Your task to perform on an android device: check android version Image 0: 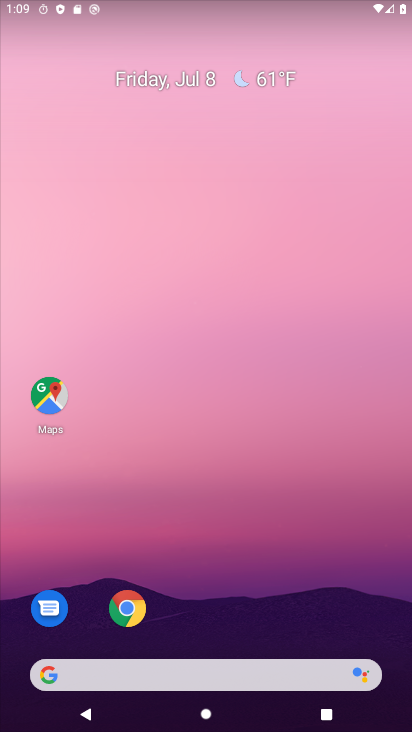
Step 0: drag from (204, 635) to (278, 52)
Your task to perform on an android device: check android version Image 1: 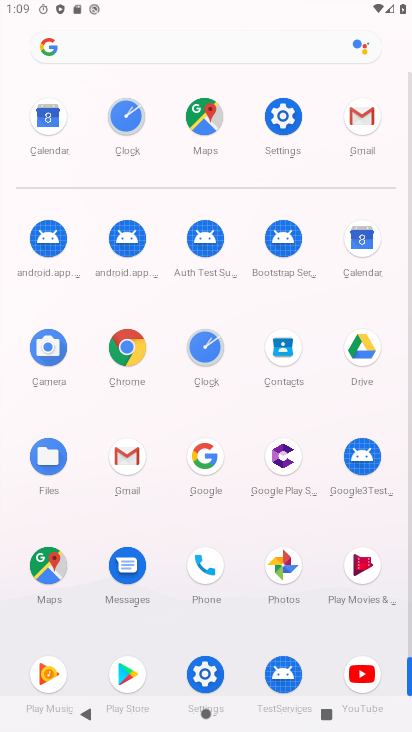
Step 1: click (285, 115)
Your task to perform on an android device: check android version Image 2: 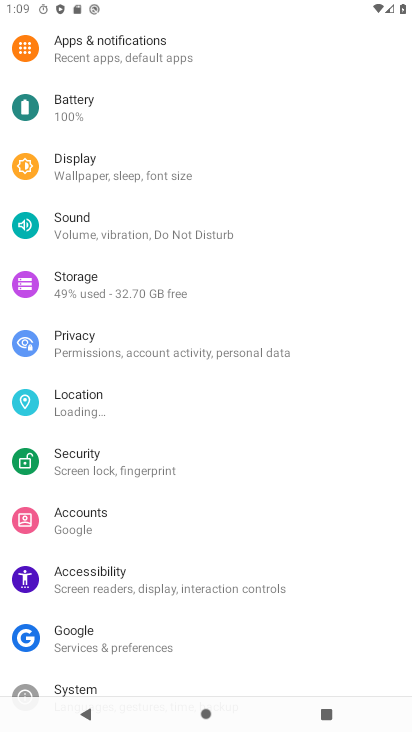
Step 2: drag from (125, 650) to (213, 334)
Your task to perform on an android device: check android version Image 3: 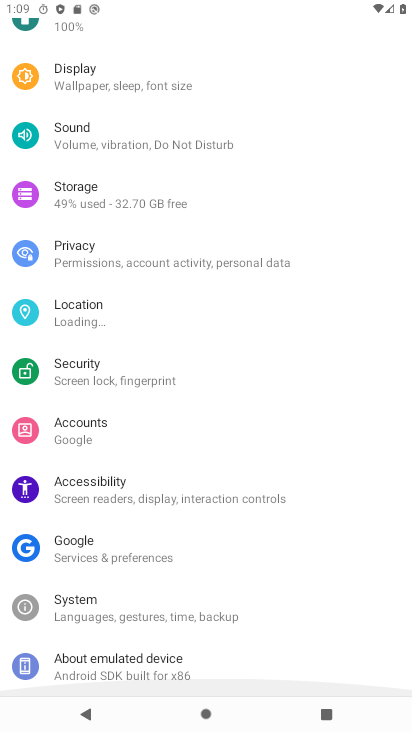
Step 3: click (113, 670)
Your task to perform on an android device: check android version Image 4: 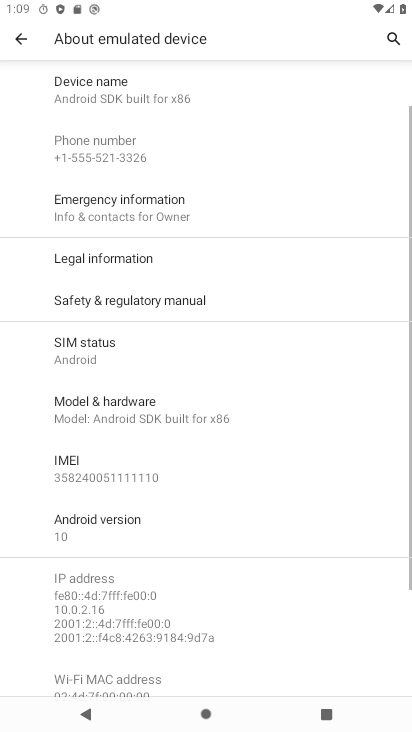
Step 4: click (82, 537)
Your task to perform on an android device: check android version Image 5: 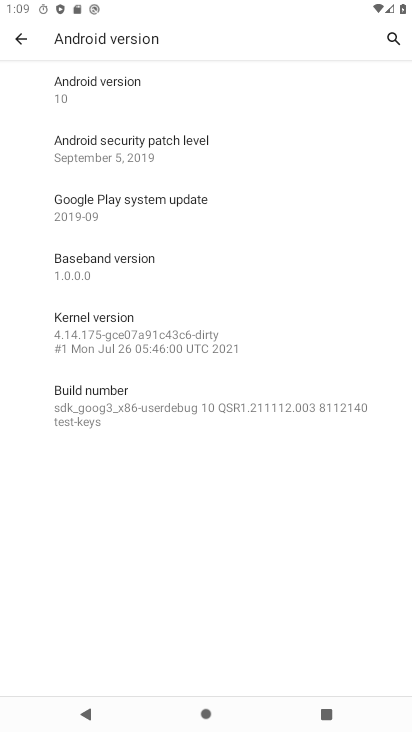
Step 5: click (133, 78)
Your task to perform on an android device: check android version Image 6: 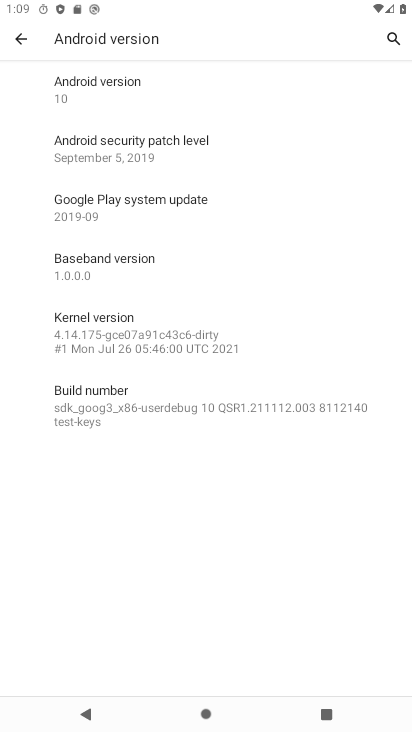
Step 6: task complete